Your task to perform on an android device: Go to Google Image 0: 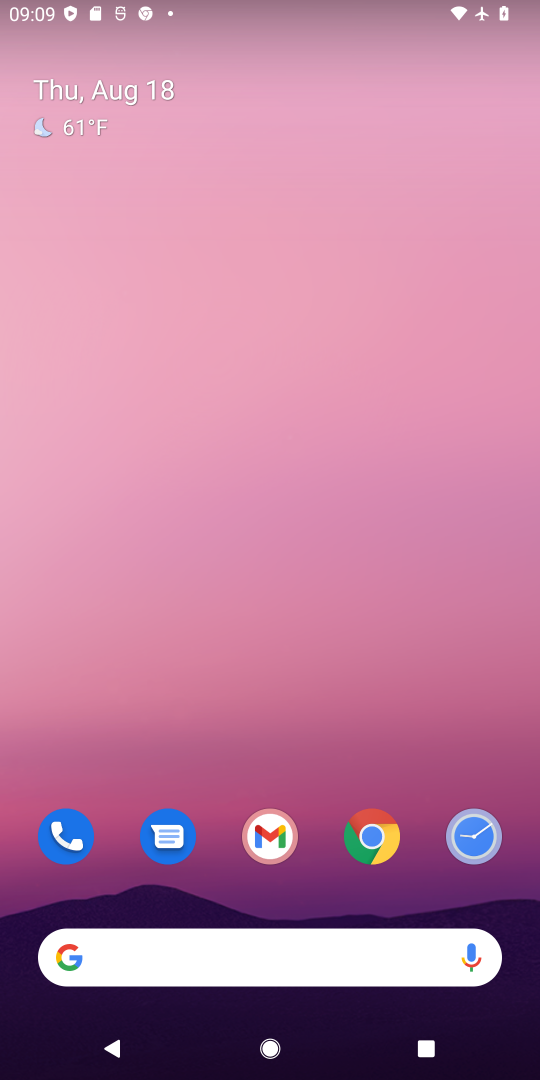
Step 0: drag from (384, 689) to (375, 10)
Your task to perform on an android device: Go to Google Image 1: 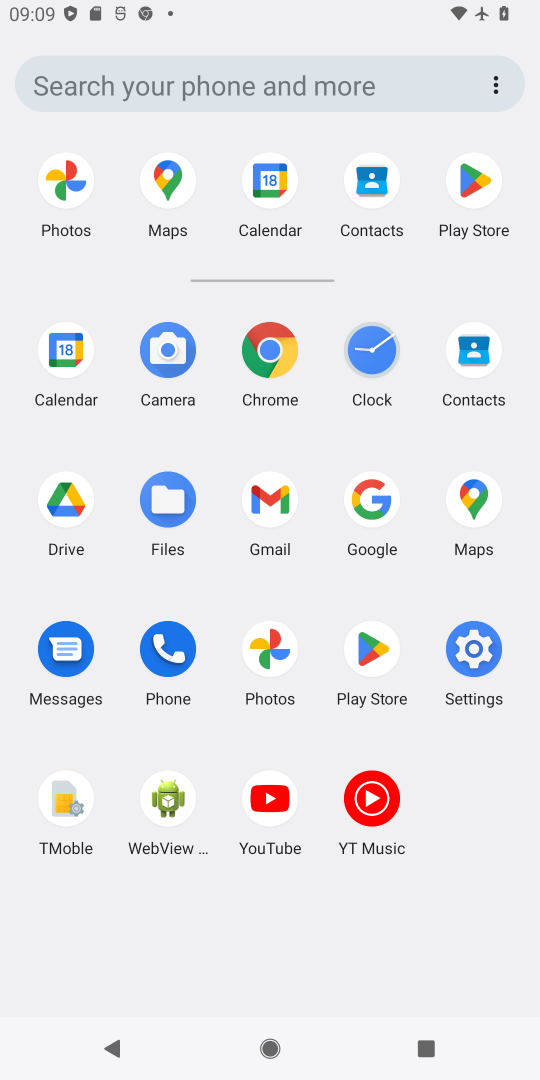
Step 1: click (369, 503)
Your task to perform on an android device: Go to Google Image 2: 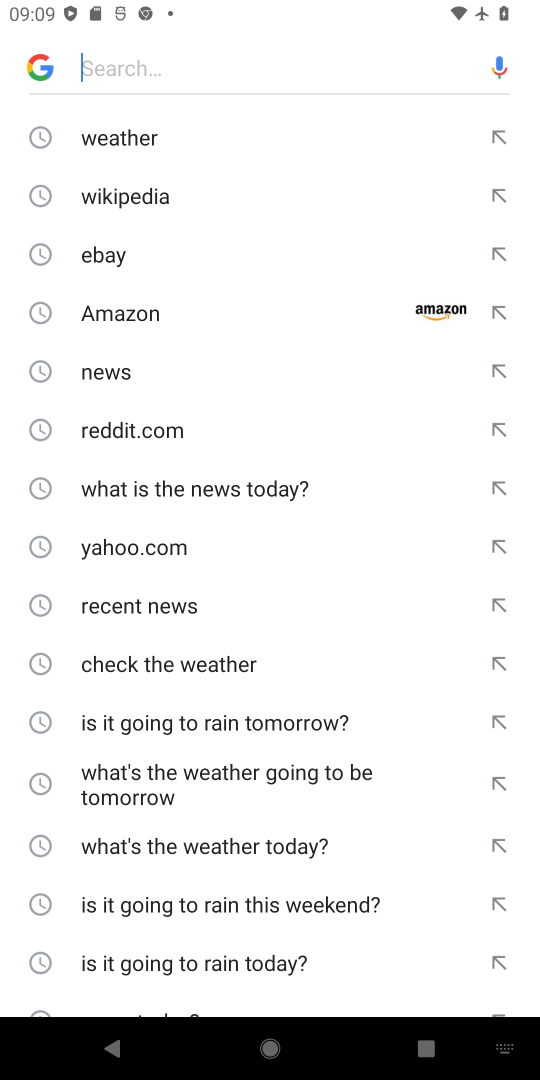
Step 2: task complete